Your task to perform on an android device: change text size in settings app Image 0: 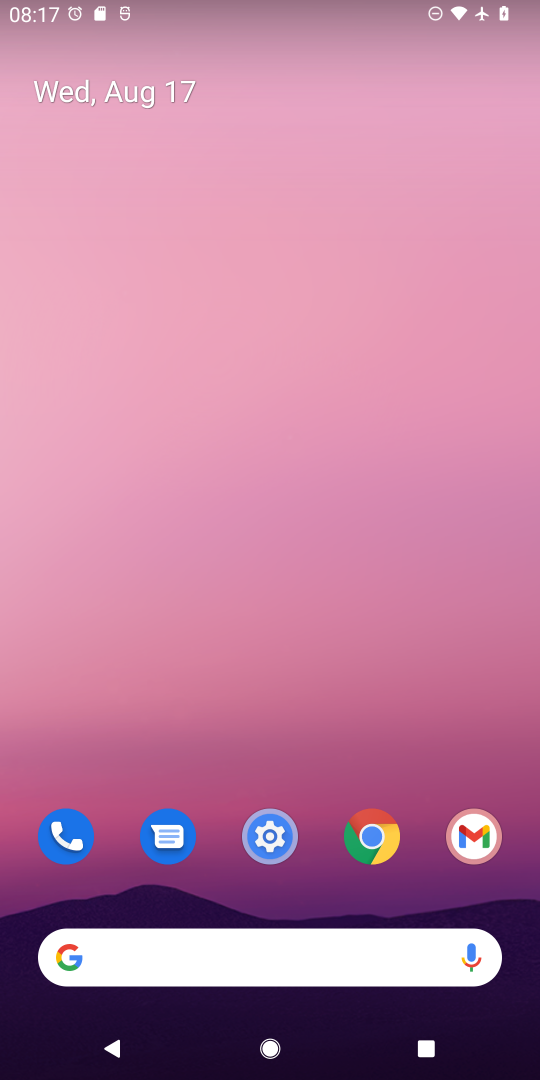
Step 0: drag from (219, 891) to (327, 303)
Your task to perform on an android device: change text size in settings app Image 1: 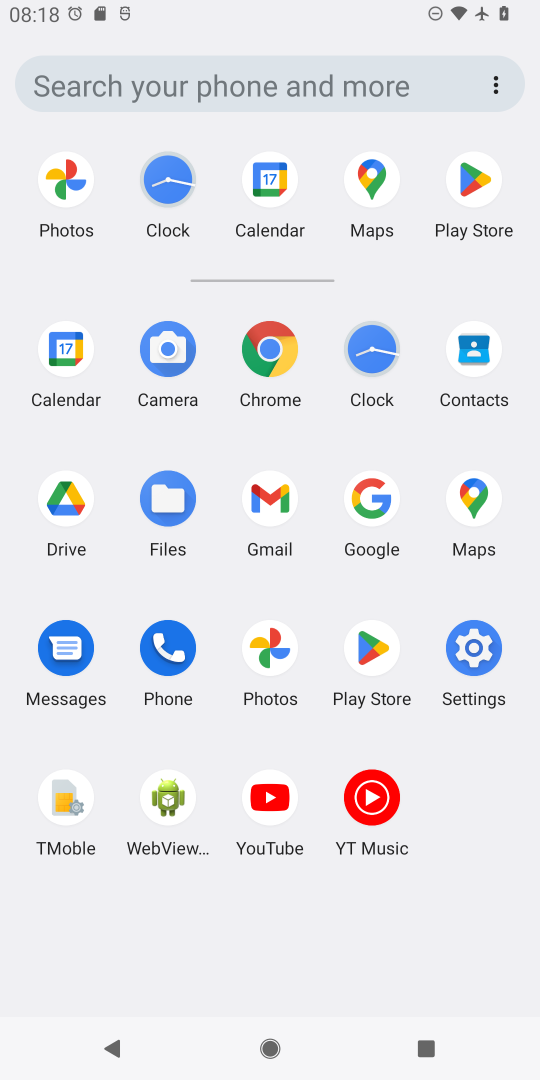
Step 1: click (457, 629)
Your task to perform on an android device: change text size in settings app Image 2: 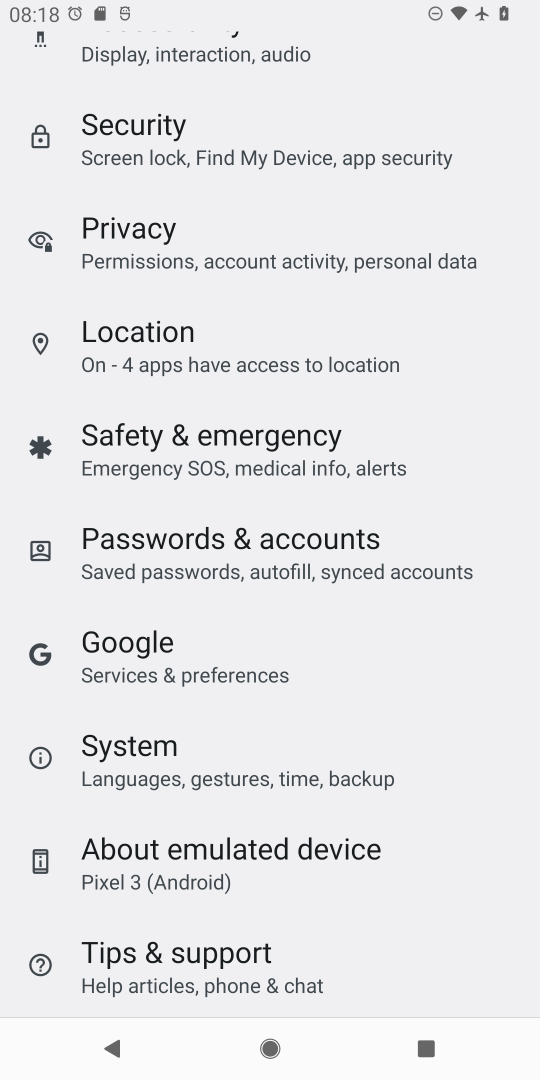
Step 2: drag from (282, 304) to (288, 704)
Your task to perform on an android device: change text size in settings app Image 3: 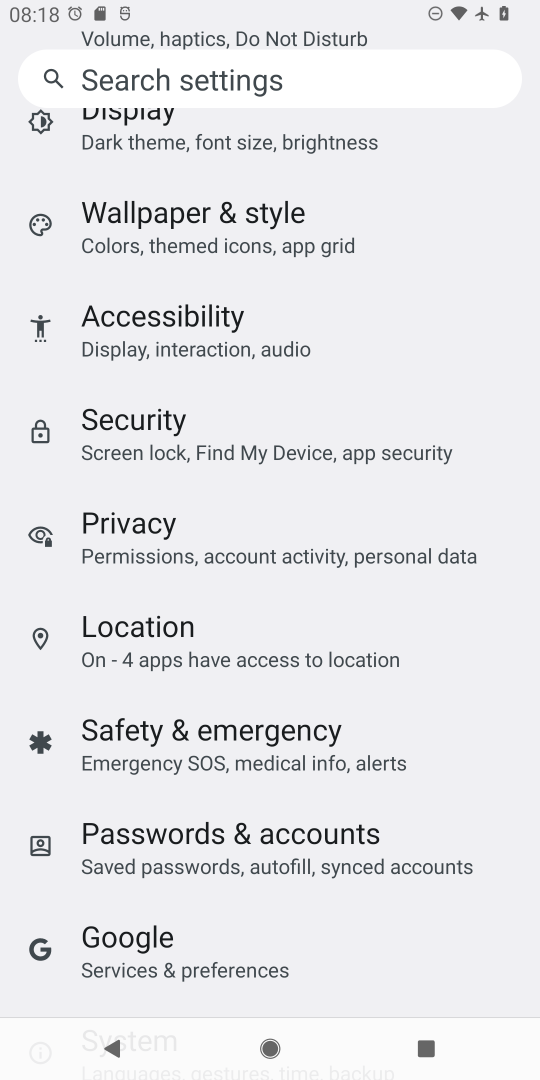
Step 3: click (199, 325)
Your task to perform on an android device: change text size in settings app Image 4: 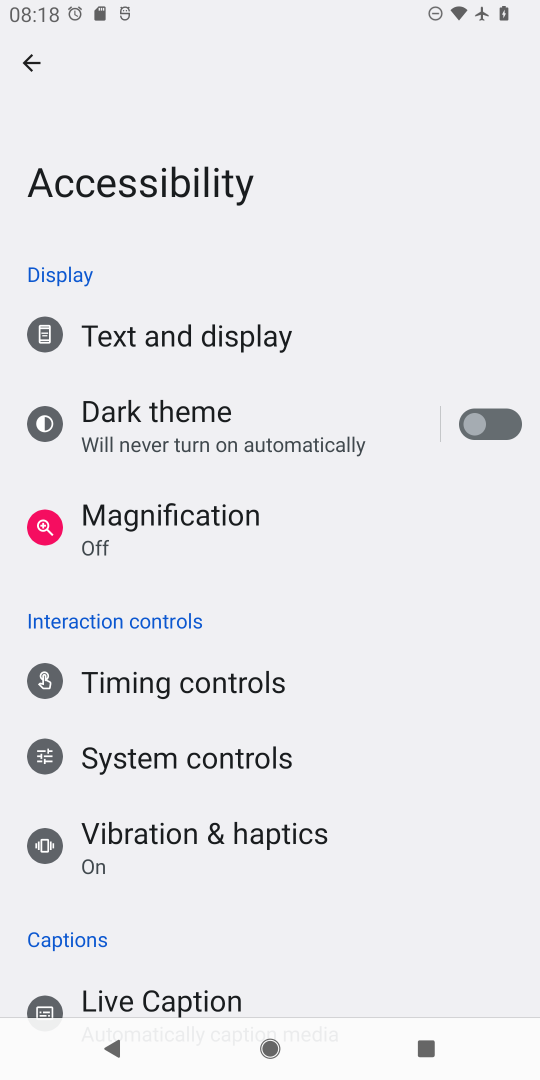
Step 4: click (199, 325)
Your task to perform on an android device: change text size in settings app Image 5: 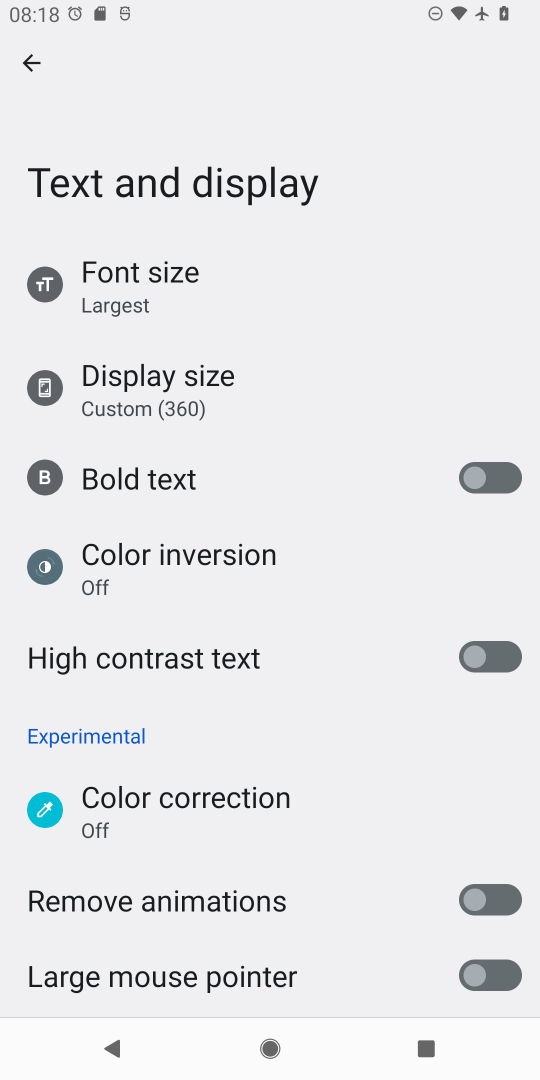
Step 5: click (224, 306)
Your task to perform on an android device: change text size in settings app Image 6: 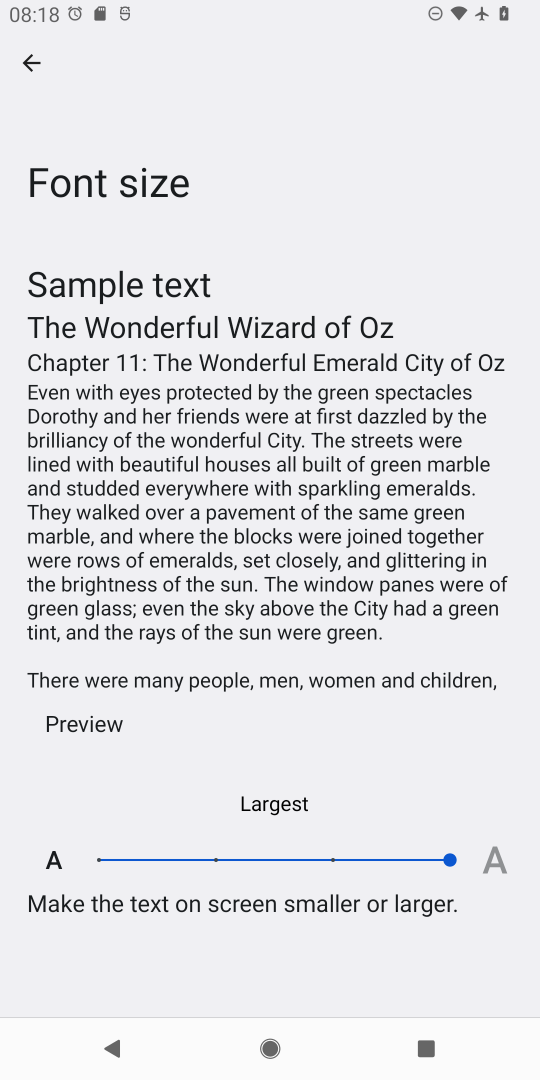
Step 6: click (347, 863)
Your task to perform on an android device: change text size in settings app Image 7: 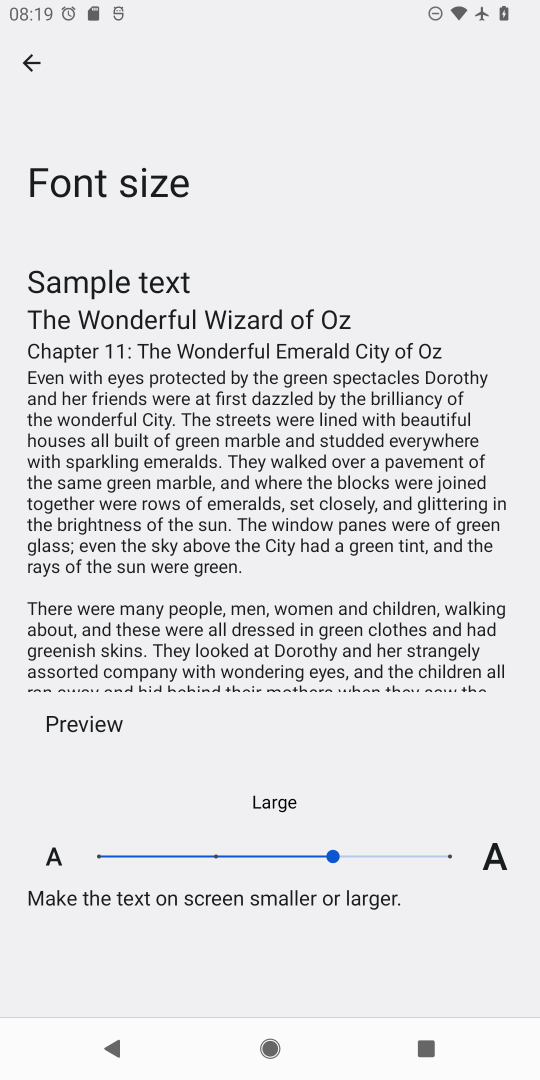
Step 7: task complete